Your task to perform on an android device: Go to Reddit.com Image 0: 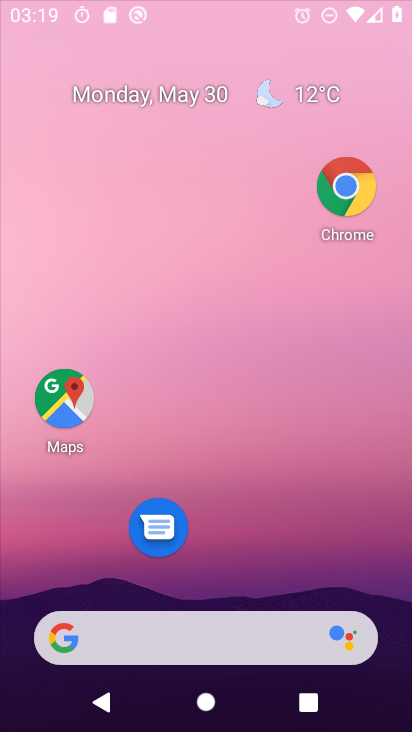
Step 0: click (250, 177)
Your task to perform on an android device: Go to Reddit.com Image 1: 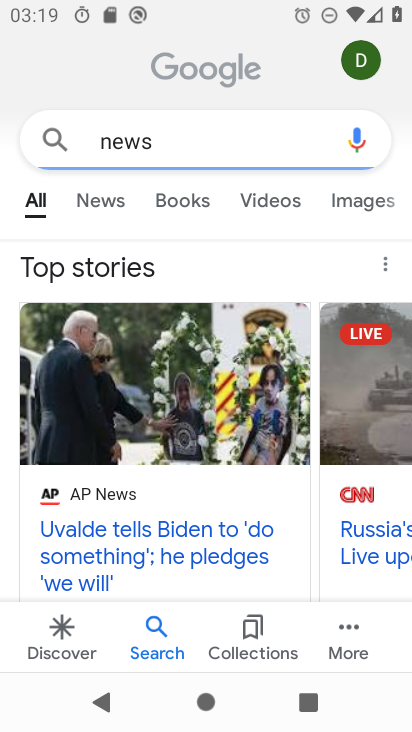
Step 1: press home button
Your task to perform on an android device: Go to Reddit.com Image 2: 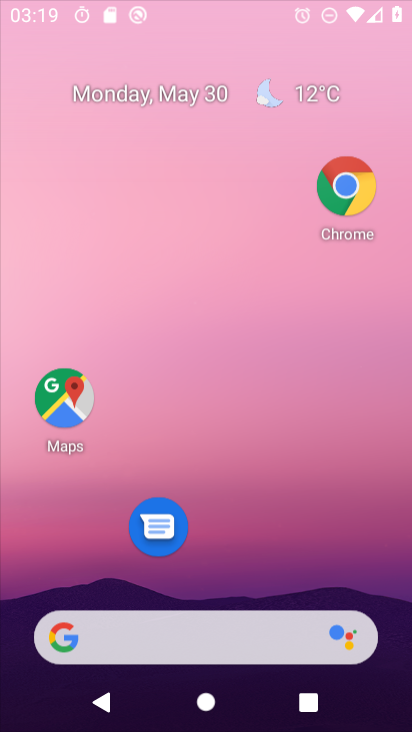
Step 2: drag from (249, 595) to (362, 144)
Your task to perform on an android device: Go to Reddit.com Image 3: 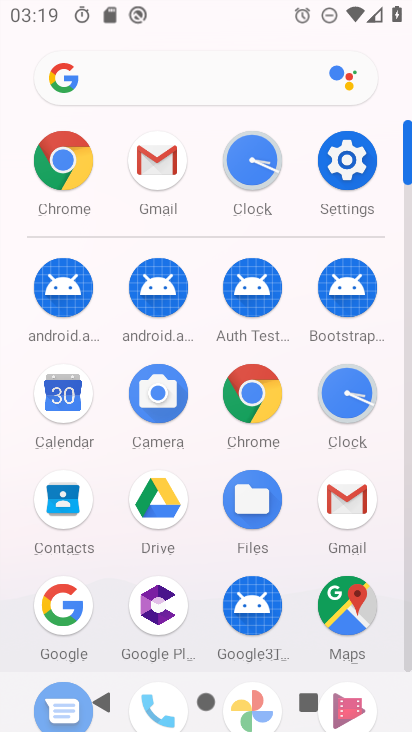
Step 3: click (250, 394)
Your task to perform on an android device: Go to Reddit.com Image 4: 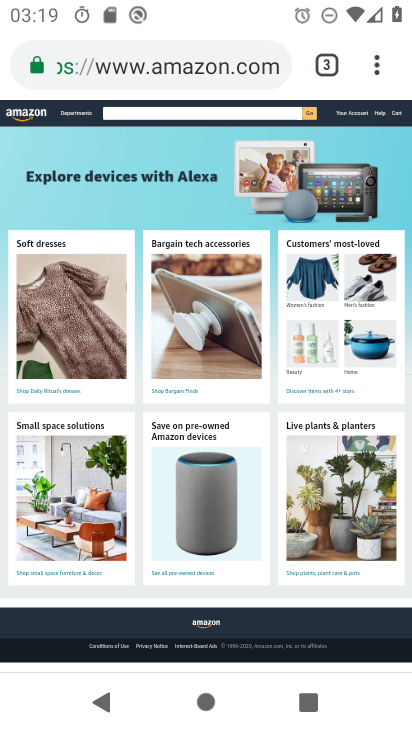
Step 4: click (188, 74)
Your task to perform on an android device: Go to Reddit.com Image 5: 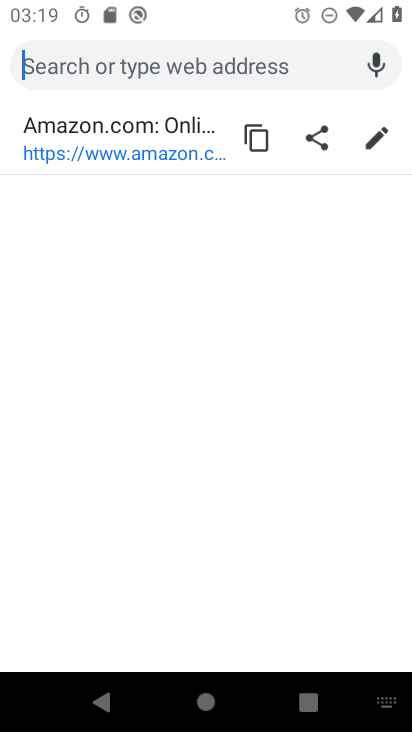
Step 5: type "Reddit.com"
Your task to perform on an android device: Go to Reddit.com Image 6: 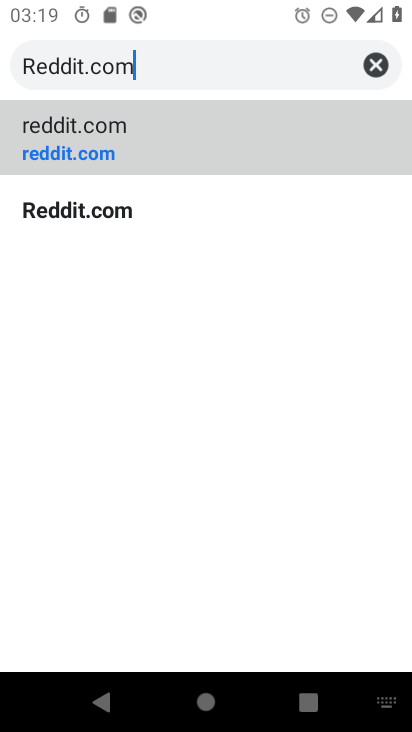
Step 6: type ""
Your task to perform on an android device: Go to Reddit.com Image 7: 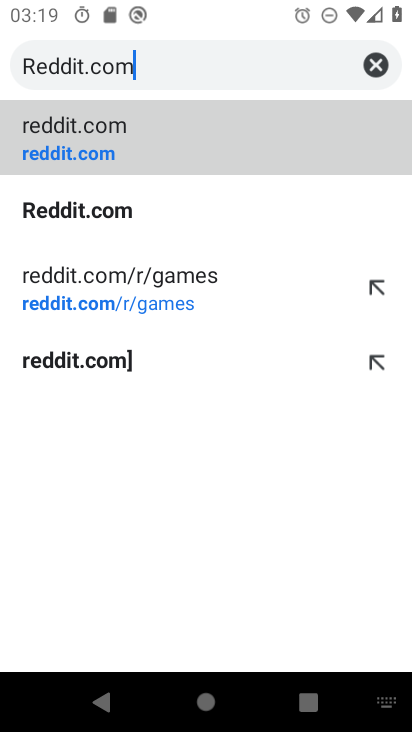
Step 7: click (121, 163)
Your task to perform on an android device: Go to Reddit.com Image 8: 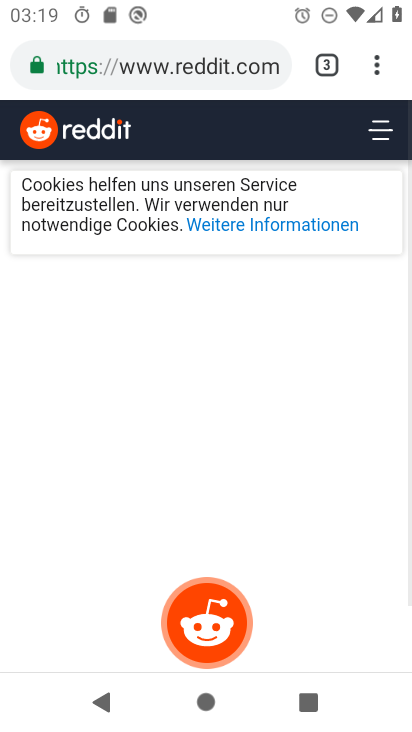
Step 8: task complete